Your task to perform on an android device: Check the news Image 0: 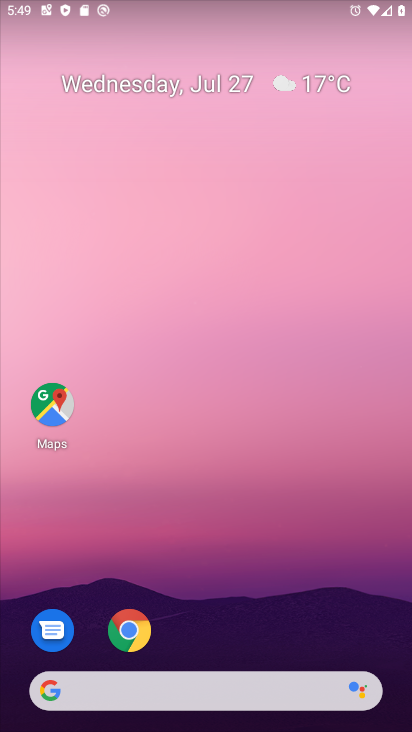
Step 0: drag from (10, 330) to (409, 372)
Your task to perform on an android device: Check the news Image 1: 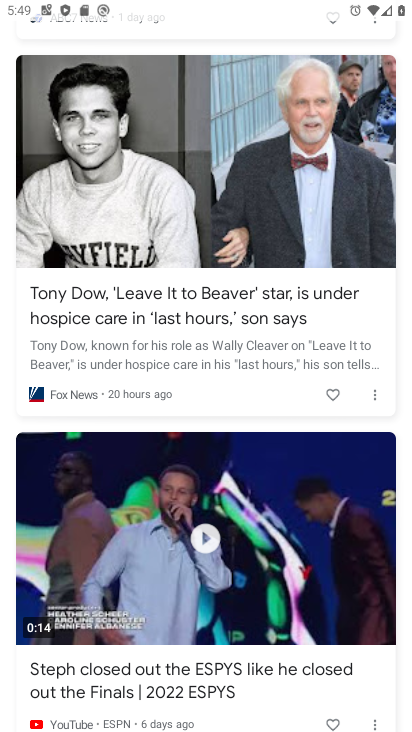
Step 1: task complete